Your task to perform on an android device: open app "Facebook Messenger" (install if not already installed) Image 0: 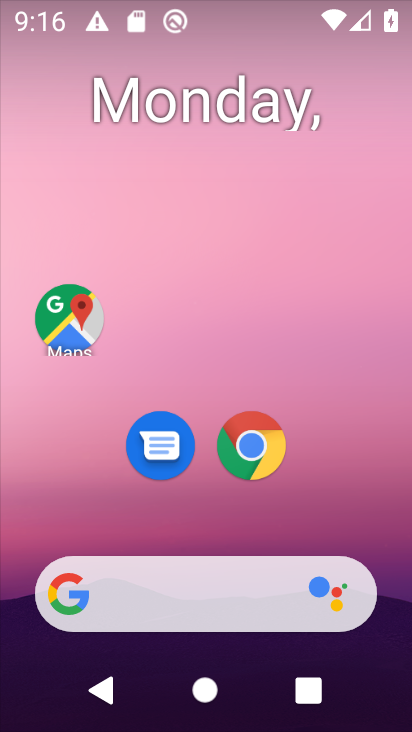
Step 0: drag from (392, 562) to (223, 32)
Your task to perform on an android device: open app "Facebook Messenger" (install if not already installed) Image 1: 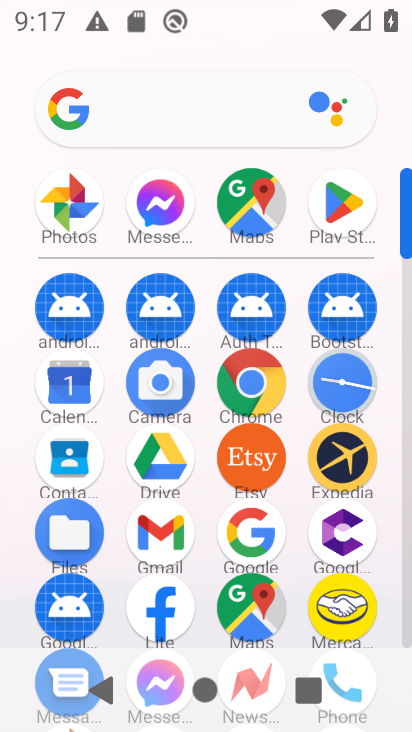
Step 1: click (334, 189)
Your task to perform on an android device: open app "Facebook Messenger" (install if not already installed) Image 2: 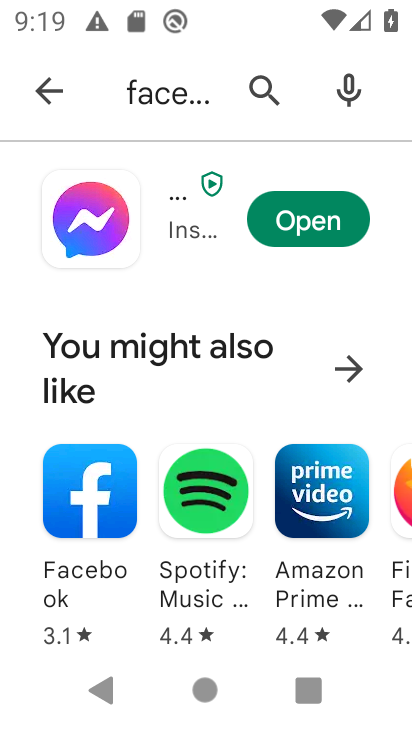
Step 2: click (300, 223)
Your task to perform on an android device: open app "Facebook Messenger" (install if not already installed) Image 3: 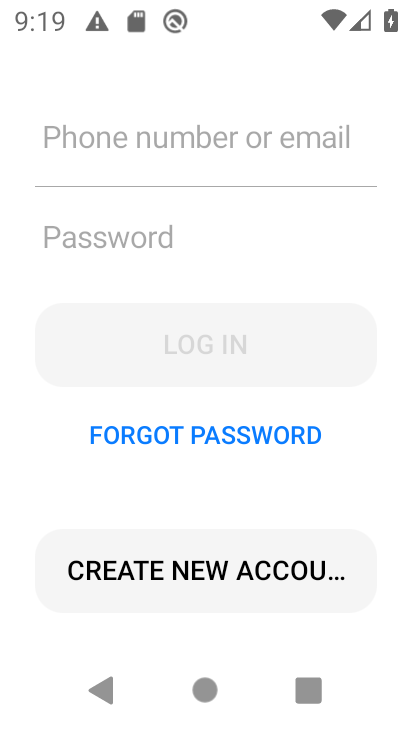
Step 3: task complete